Your task to perform on an android device: Open Google Chrome and open the bookmarks view Image 0: 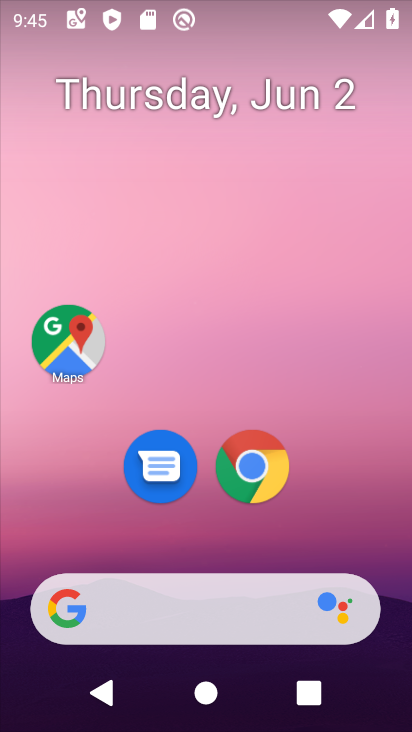
Step 0: click (249, 464)
Your task to perform on an android device: Open Google Chrome and open the bookmarks view Image 1: 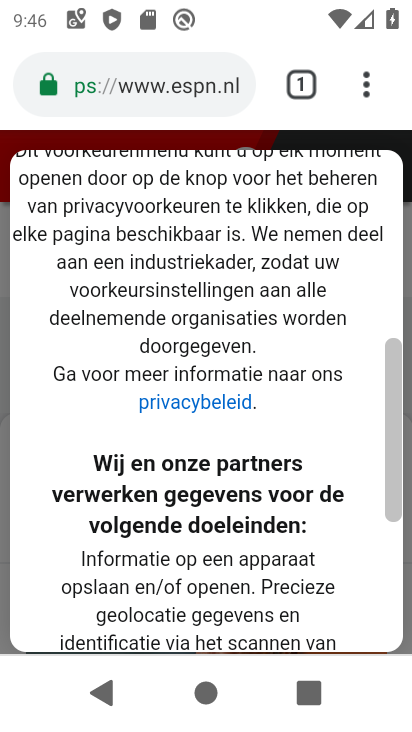
Step 1: click (363, 83)
Your task to perform on an android device: Open Google Chrome and open the bookmarks view Image 2: 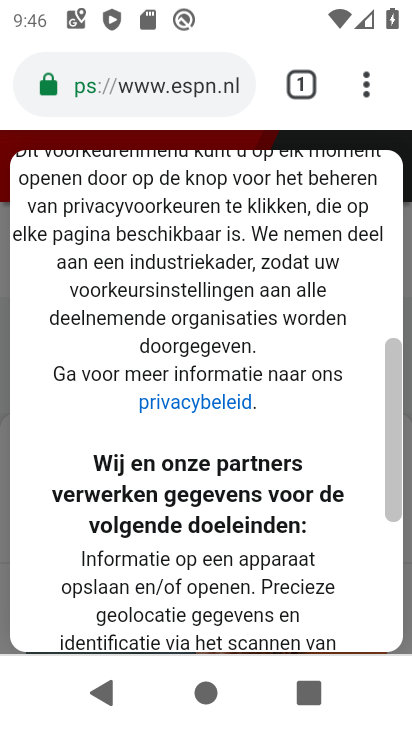
Step 2: click (372, 88)
Your task to perform on an android device: Open Google Chrome and open the bookmarks view Image 3: 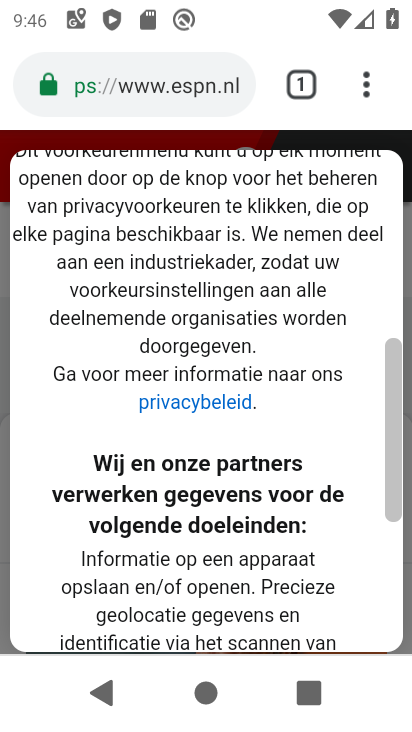
Step 3: click (363, 97)
Your task to perform on an android device: Open Google Chrome and open the bookmarks view Image 4: 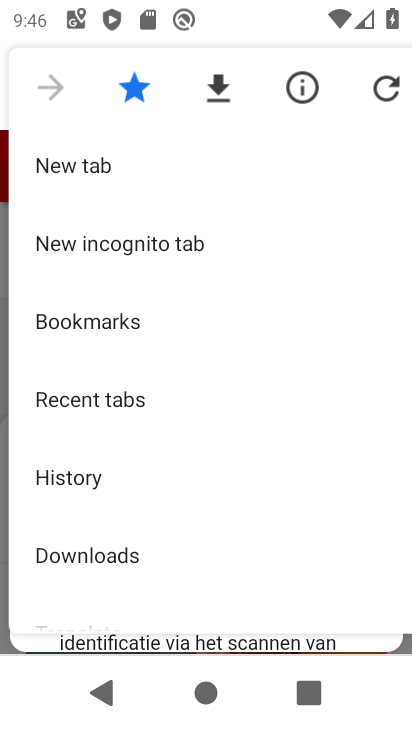
Step 4: click (103, 327)
Your task to perform on an android device: Open Google Chrome and open the bookmarks view Image 5: 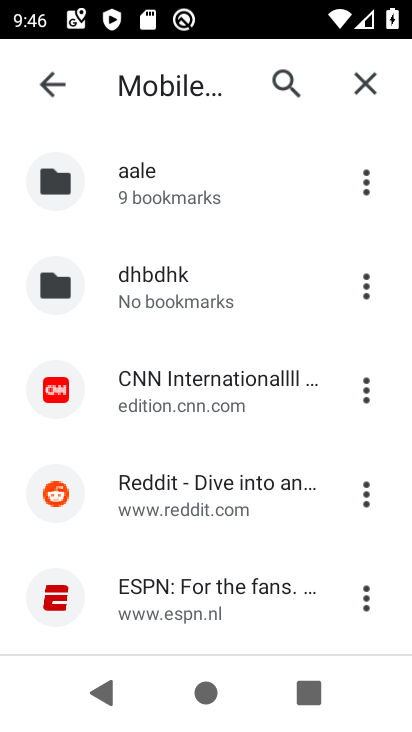
Step 5: task complete